Your task to perform on an android device: set the stopwatch Image 0: 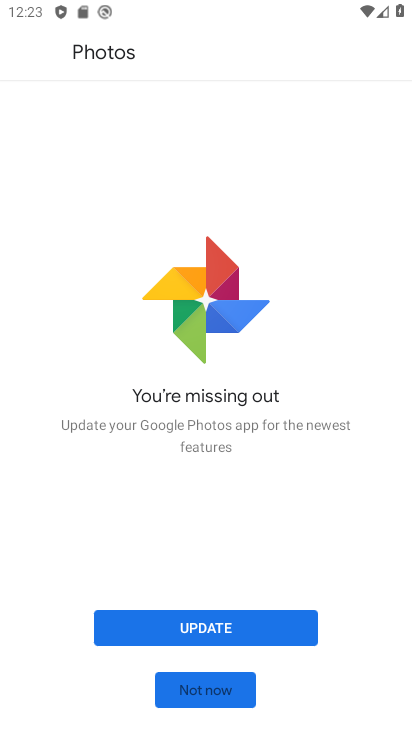
Step 0: press home button
Your task to perform on an android device: set the stopwatch Image 1: 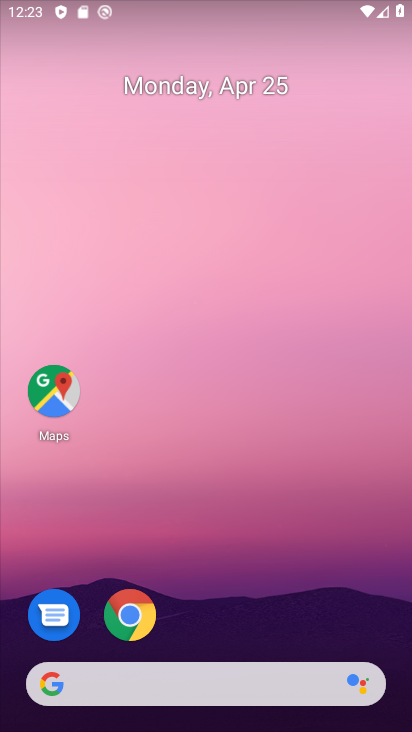
Step 1: drag from (208, 646) to (238, 10)
Your task to perform on an android device: set the stopwatch Image 2: 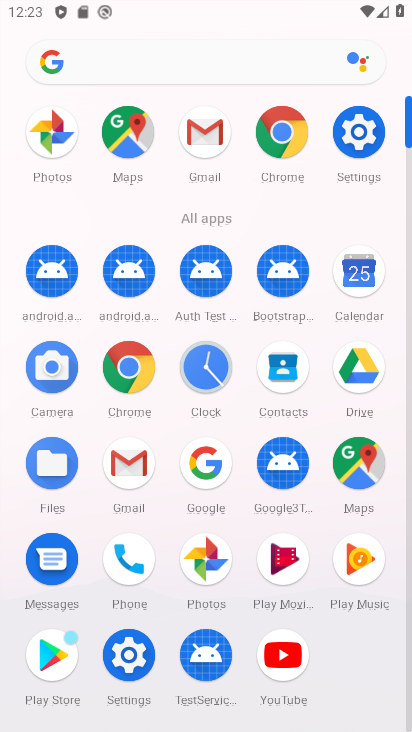
Step 2: click (215, 366)
Your task to perform on an android device: set the stopwatch Image 3: 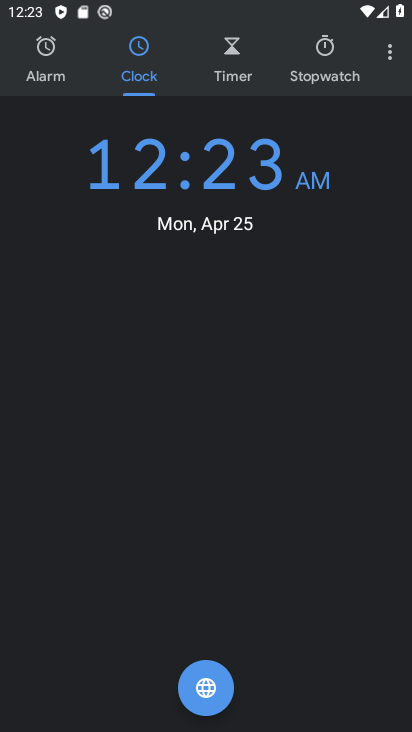
Step 3: click (321, 65)
Your task to perform on an android device: set the stopwatch Image 4: 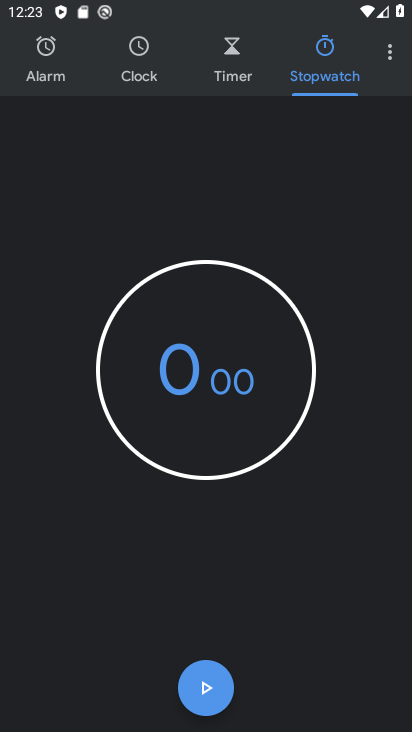
Step 4: click (228, 679)
Your task to perform on an android device: set the stopwatch Image 5: 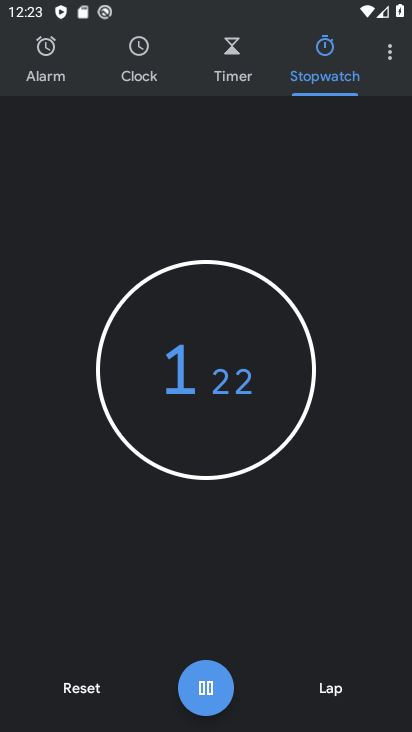
Step 5: click (228, 679)
Your task to perform on an android device: set the stopwatch Image 6: 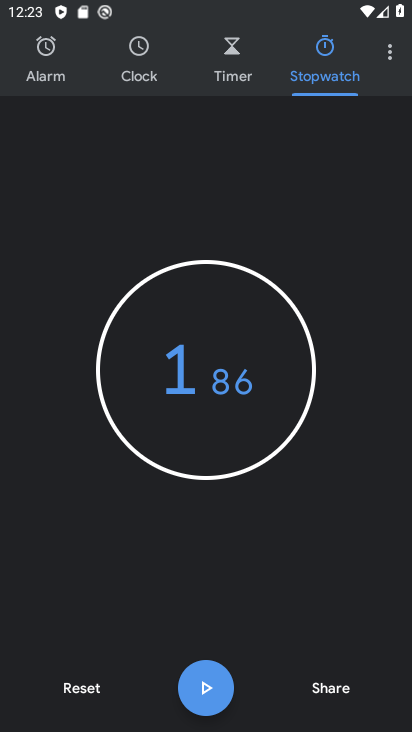
Step 6: task complete